Your task to perform on an android device: Check the news Image 0: 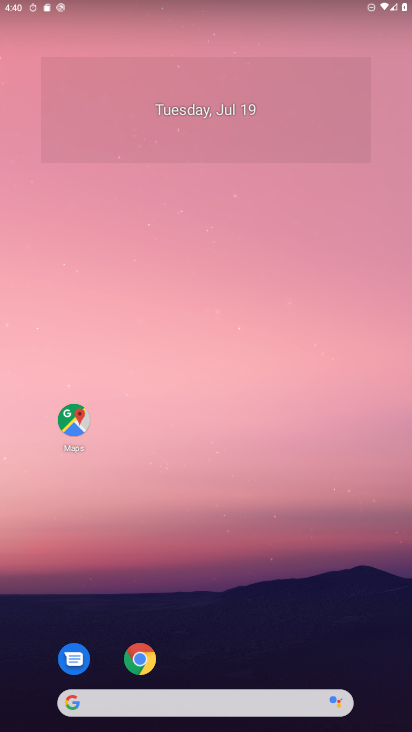
Step 0: drag from (257, 577) to (338, 19)
Your task to perform on an android device: Check the news Image 1: 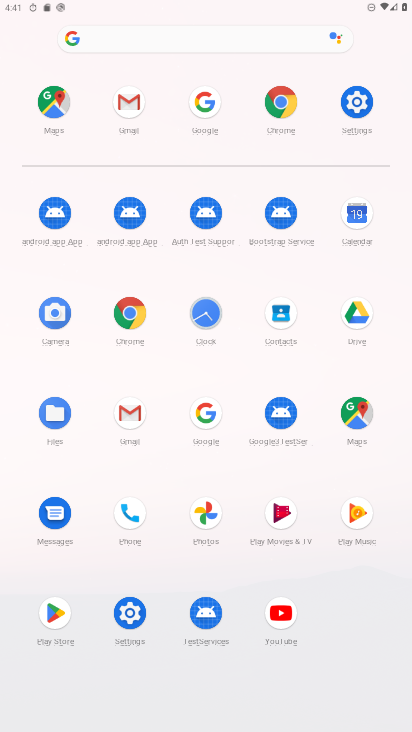
Step 1: click (275, 106)
Your task to perform on an android device: Check the news Image 2: 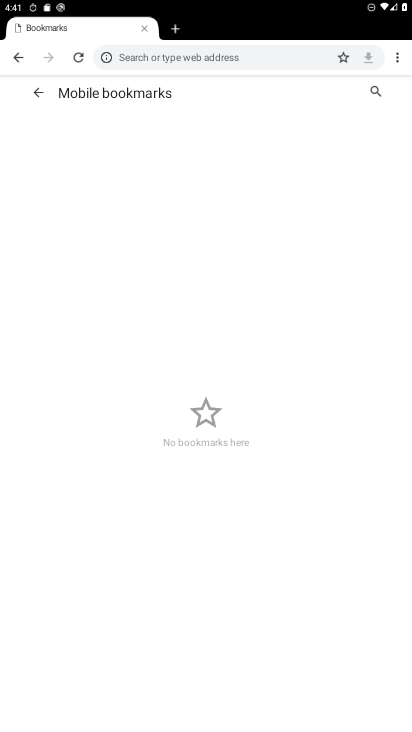
Step 2: click (24, 62)
Your task to perform on an android device: Check the news Image 3: 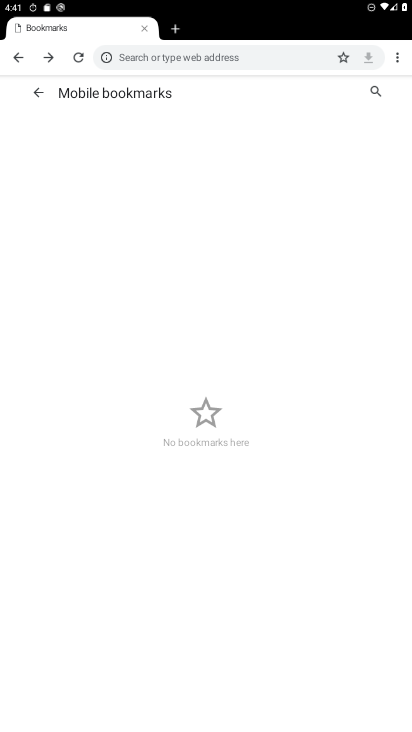
Step 3: click (44, 90)
Your task to perform on an android device: Check the news Image 4: 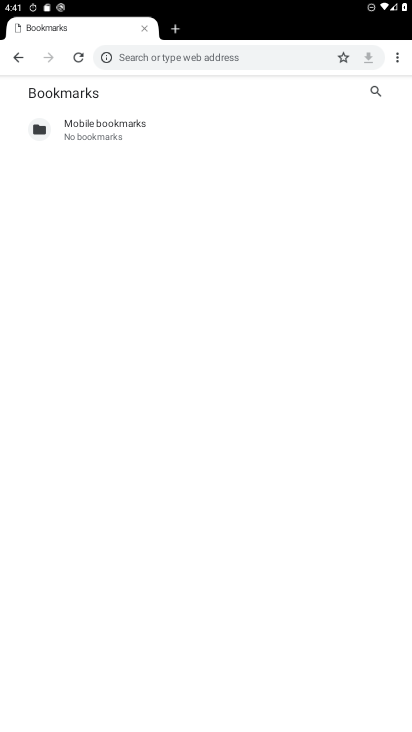
Step 4: click (24, 57)
Your task to perform on an android device: Check the news Image 5: 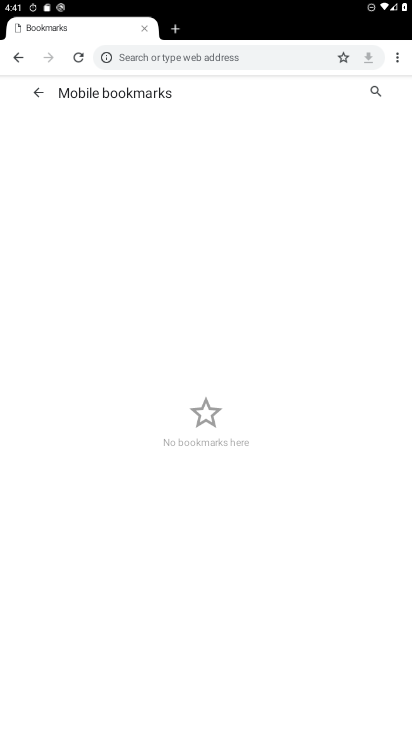
Step 5: click (14, 50)
Your task to perform on an android device: Check the news Image 6: 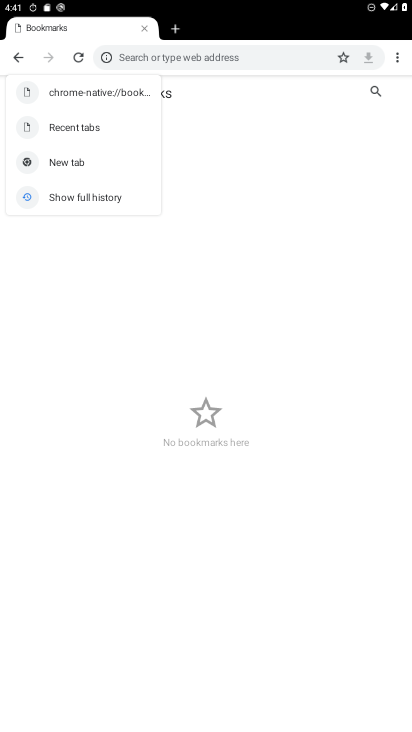
Step 6: click (18, 63)
Your task to perform on an android device: Check the news Image 7: 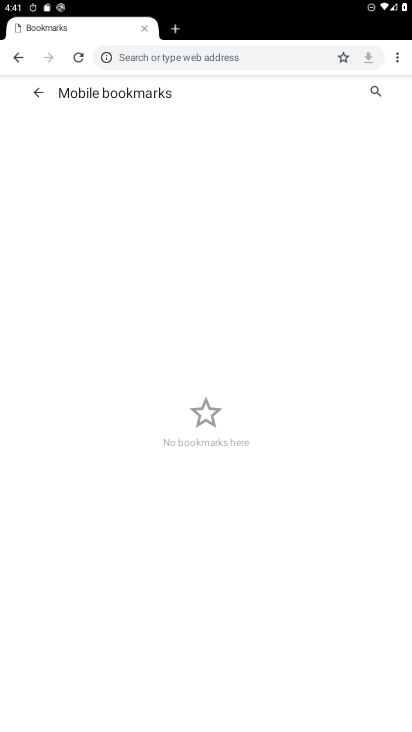
Step 7: click (18, 62)
Your task to perform on an android device: Check the news Image 8: 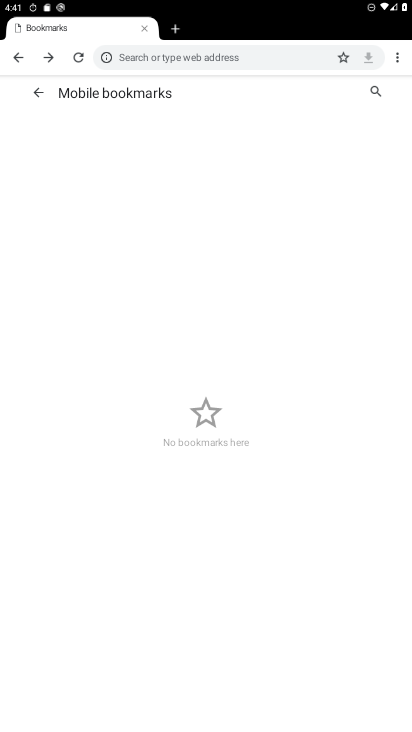
Step 8: task complete